Your task to perform on an android device: Do I have any events tomorrow? Image 0: 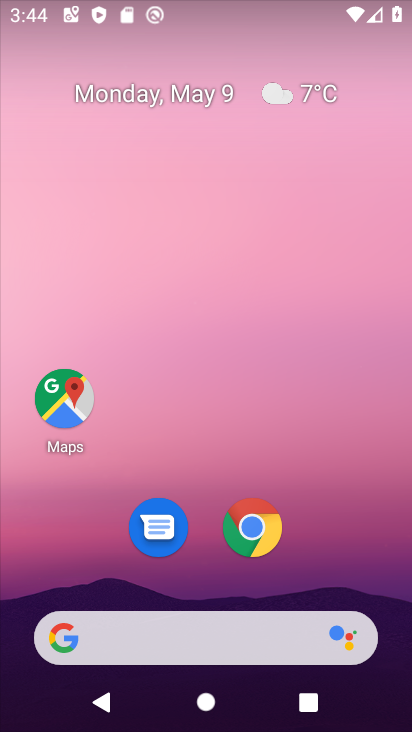
Step 0: click (224, 88)
Your task to perform on an android device: Do I have any events tomorrow? Image 1: 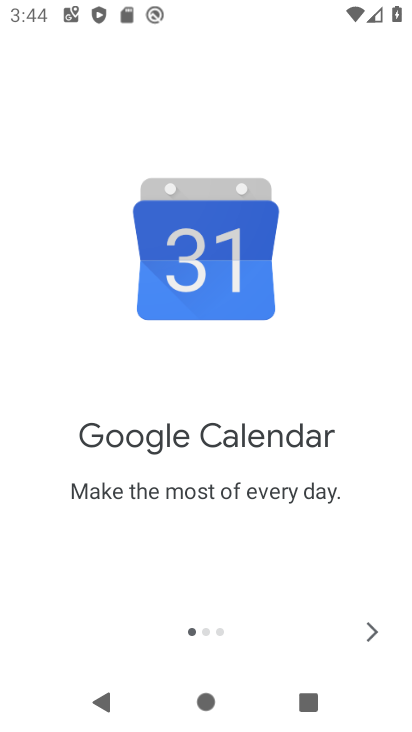
Step 1: click (372, 635)
Your task to perform on an android device: Do I have any events tomorrow? Image 2: 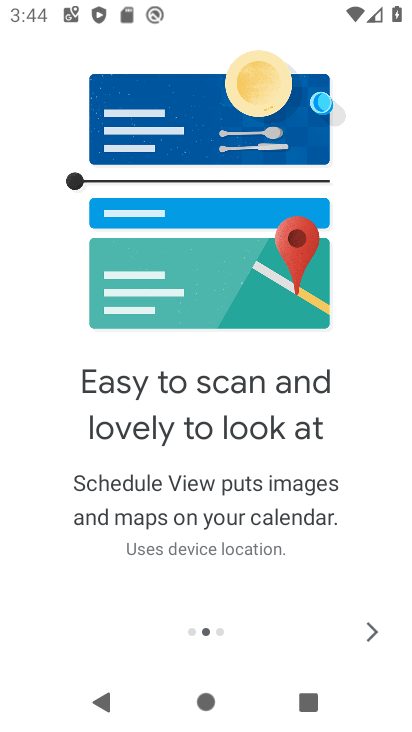
Step 2: click (372, 635)
Your task to perform on an android device: Do I have any events tomorrow? Image 3: 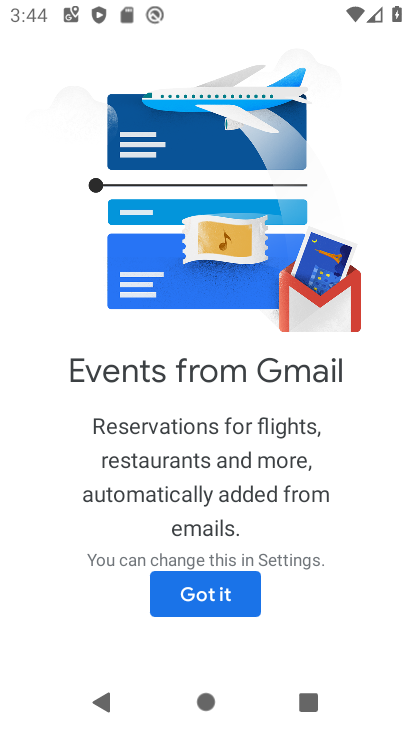
Step 3: click (372, 635)
Your task to perform on an android device: Do I have any events tomorrow? Image 4: 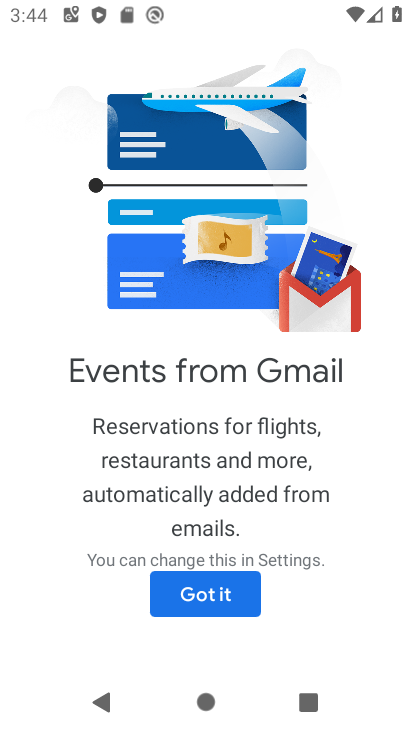
Step 4: click (209, 604)
Your task to perform on an android device: Do I have any events tomorrow? Image 5: 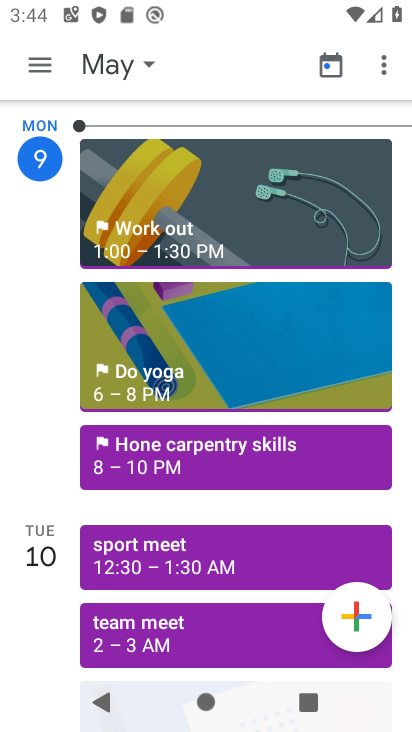
Step 5: task complete